Your task to perform on an android device: toggle improve location accuracy Image 0: 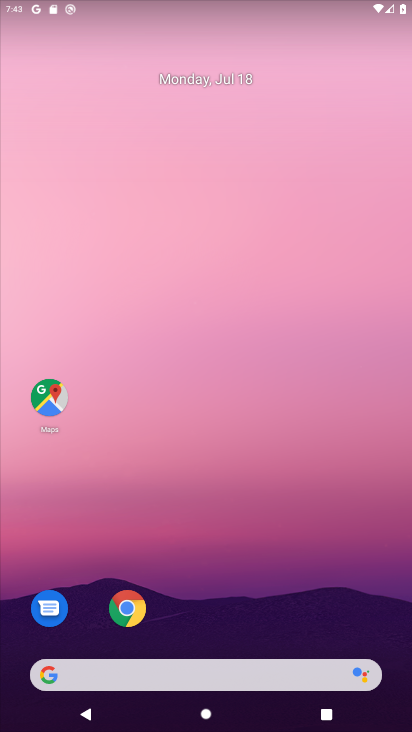
Step 0: drag from (206, 649) to (196, 65)
Your task to perform on an android device: toggle improve location accuracy Image 1: 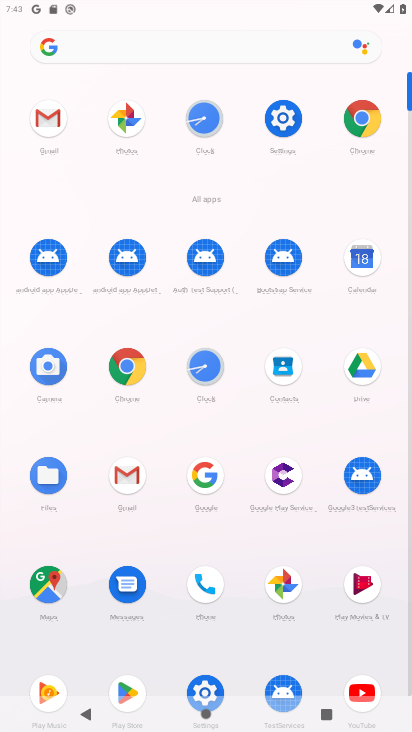
Step 1: click (274, 127)
Your task to perform on an android device: toggle improve location accuracy Image 2: 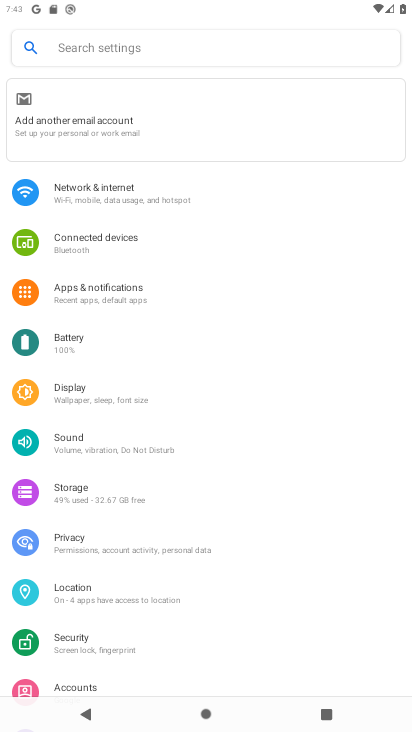
Step 2: click (69, 600)
Your task to perform on an android device: toggle improve location accuracy Image 3: 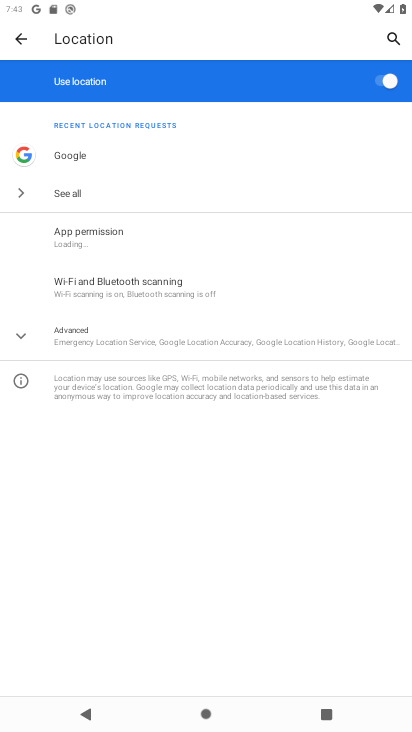
Step 3: click (45, 331)
Your task to perform on an android device: toggle improve location accuracy Image 4: 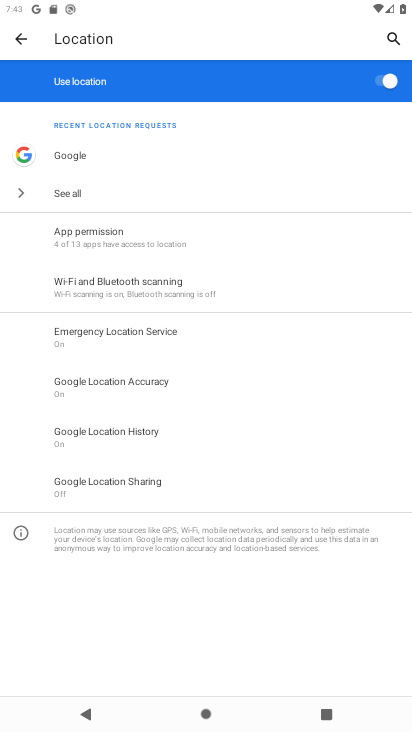
Step 4: click (113, 383)
Your task to perform on an android device: toggle improve location accuracy Image 5: 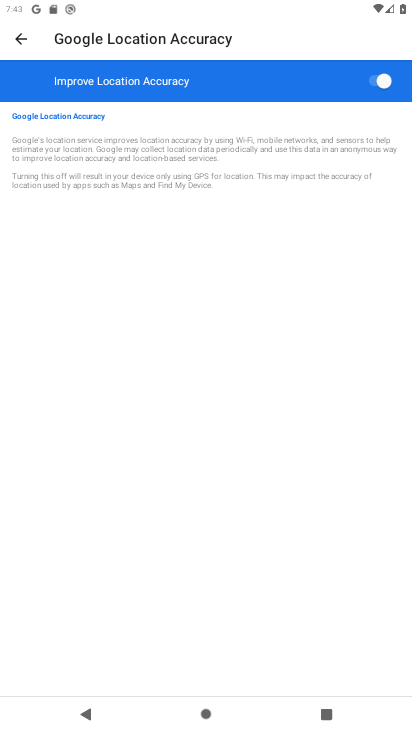
Step 5: click (379, 83)
Your task to perform on an android device: toggle improve location accuracy Image 6: 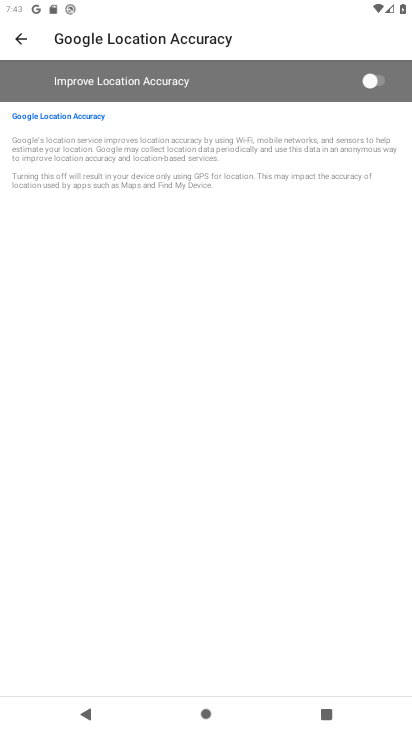
Step 6: task complete